Your task to perform on an android device: choose inbox layout in the gmail app Image 0: 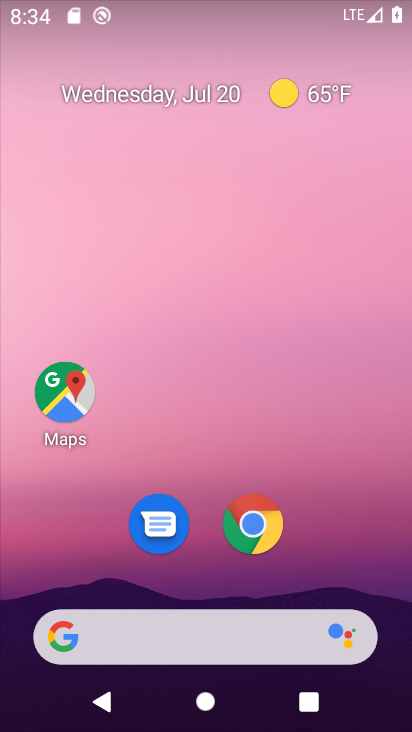
Step 0: drag from (333, 547) to (350, 82)
Your task to perform on an android device: choose inbox layout in the gmail app Image 1: 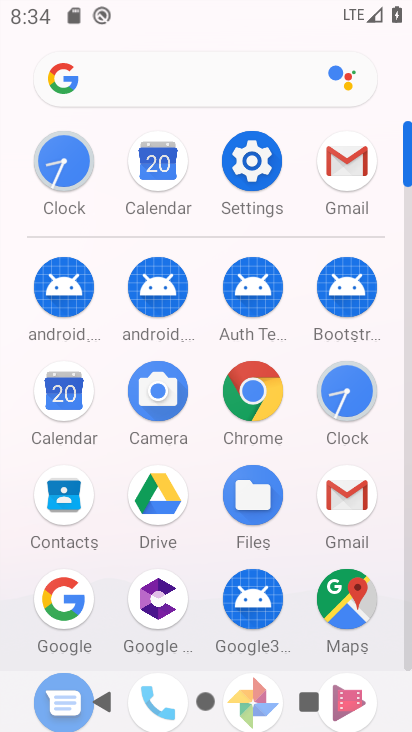
Step 1: click (359, 166)
Your task to perform on an android device: choose inbox layout in the gmail app Image 2: 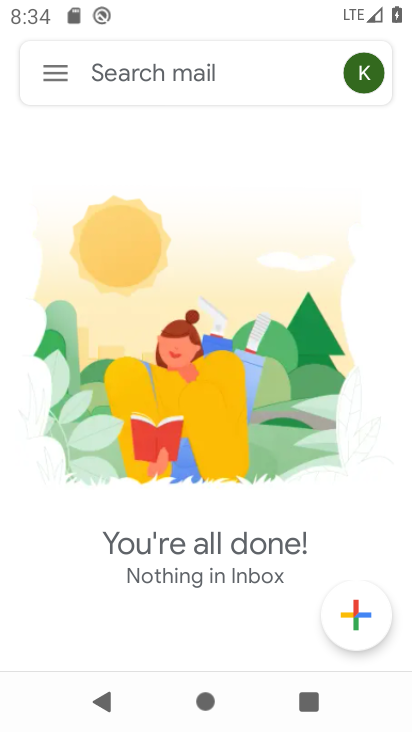
Step 2: click (50, 74)
Your task to perform on an android device: choose inbox layout in the gmail app Image 3: 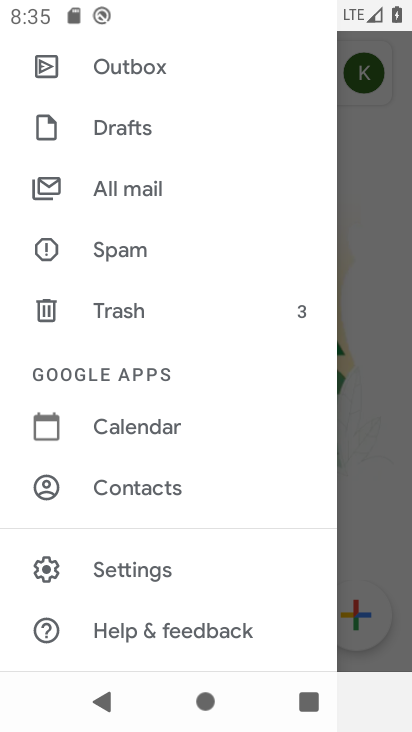
Step 3: click (138, 559)
Your task to perform on an android device: choose inbox layout in the gmail app Image 4: 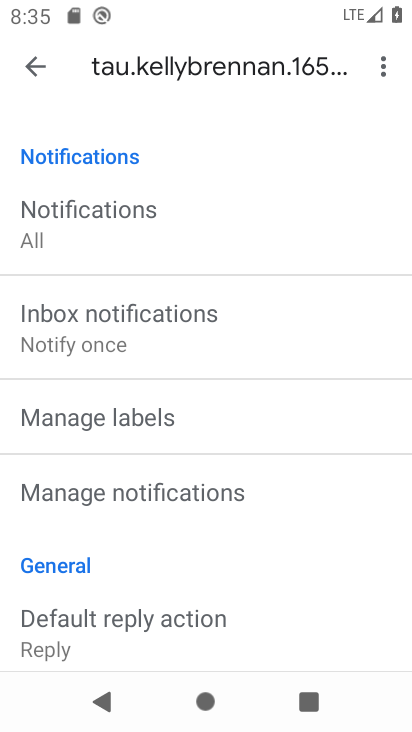
Step 4: drag from (233, 565) to (249, 204)
Your task to perform on an android device: choose inbox layout in the gmail app Image 5: 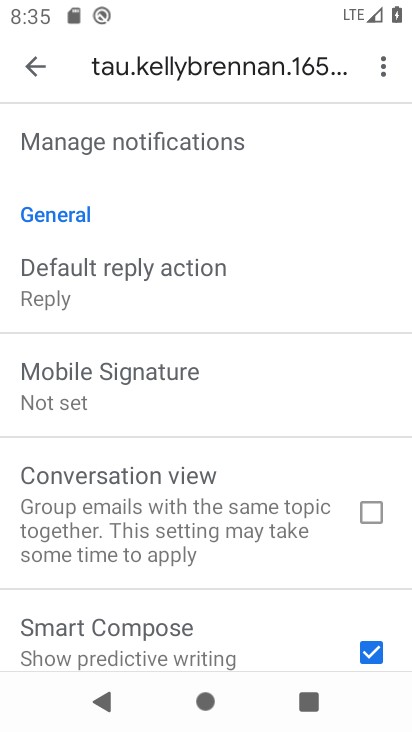
Step 5: drag from (240, 191) to (233, 535)
Your task to perform on an android device: choose inbox layout in the gmail app Image 6: 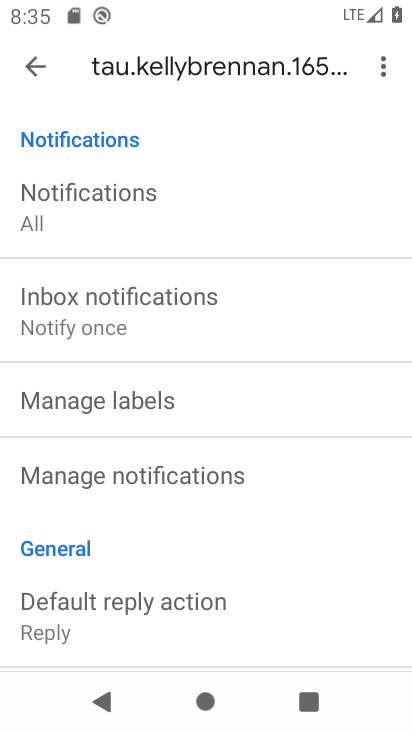
Step 6: drag from (223, 223) to (212, 591)
Your task to perform on an android device: choose inbox layout in the gmail app Image 7: 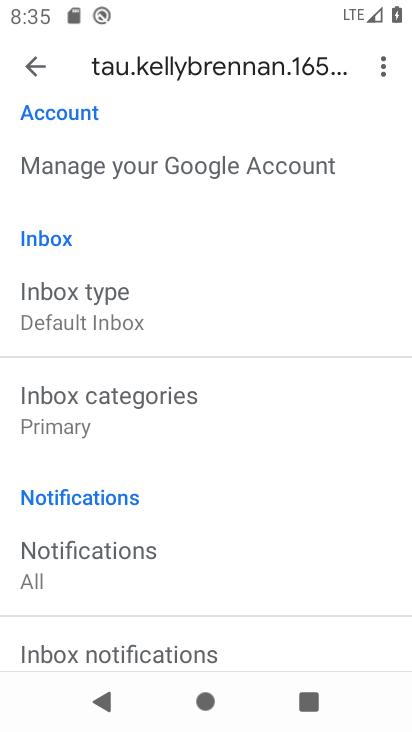
Step 7: click (89, 302)
Your task to perform on an android device: choose inbox layout in the gmail app Image 8: 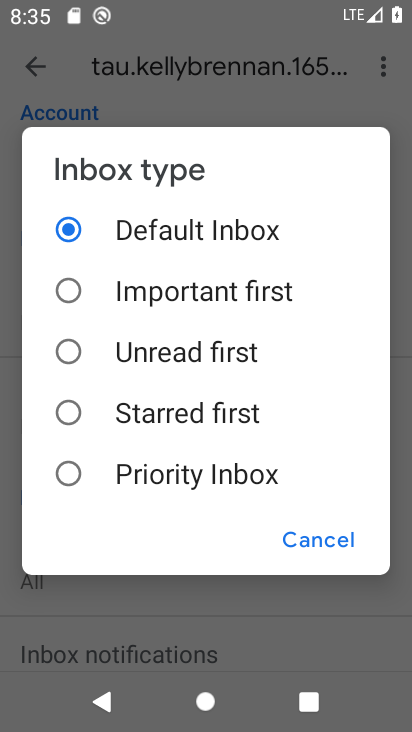
Step 8: click (75, 282)
Your task to perform on an android device: choose inbox layout in the gmail app Image 9: 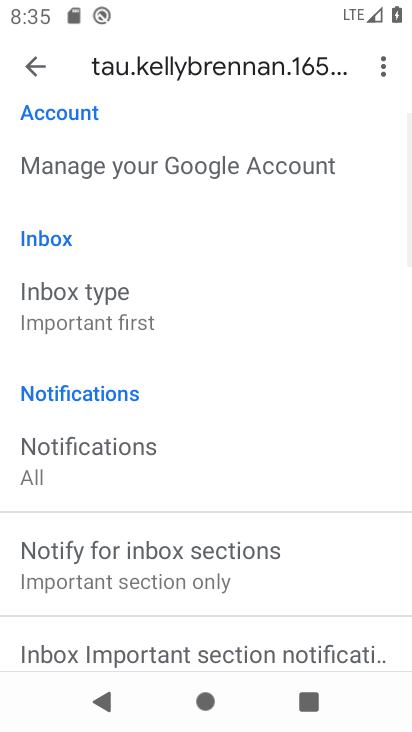
Step 9: task complete